Your task to perform on an android device: Open settings Image 0: 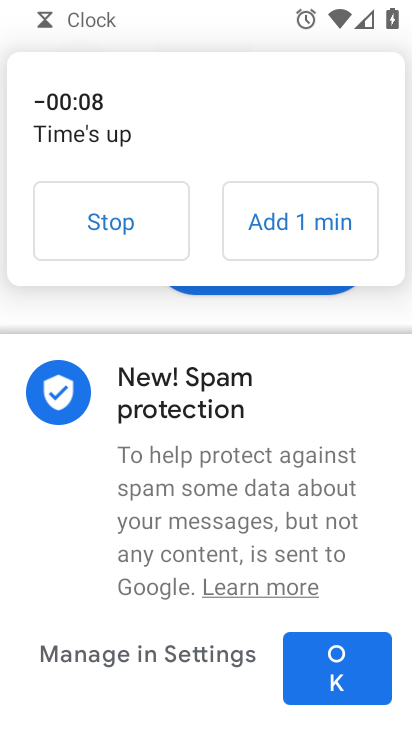
Step 0: press home button
Your task to perform on an android device: Open settings Image 1: 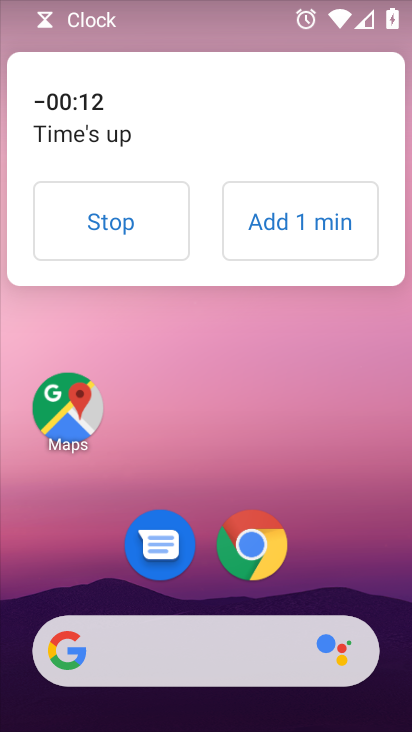
Step 1: drag from (353, 556) to (317, 42)
Your task to perform on an android device: Open settings Image 2: 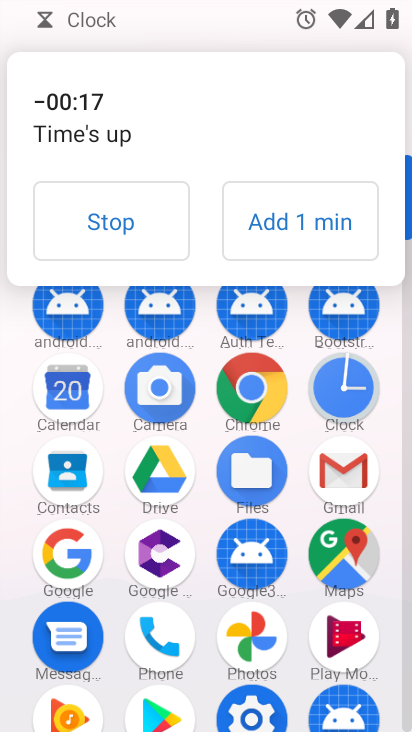
Step 2: click (142, 229)
Your task to perform on an android device: Open settings Image 3: 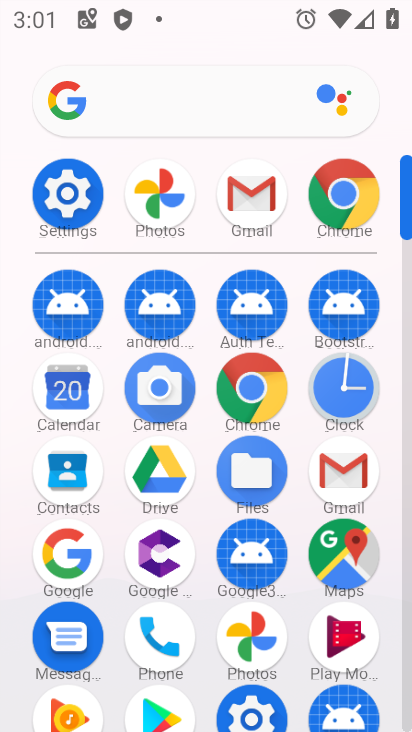
Step 3: click (59, 201)
Your task to perform on an android device: Open settings Image 4: 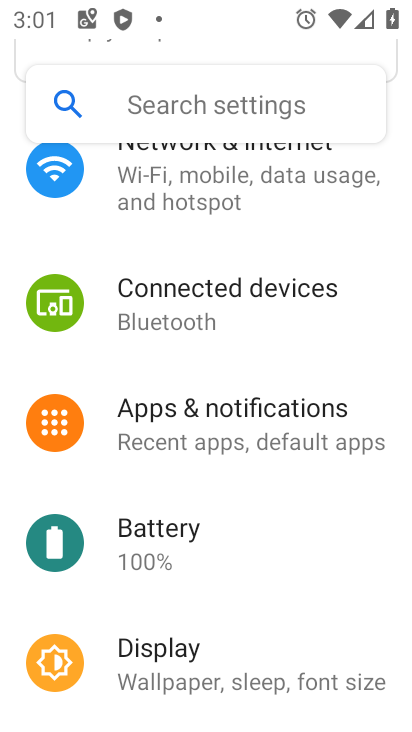
Step 4: task complete